Your task to perform on an android device: Search for hotels in Denver Image 0: 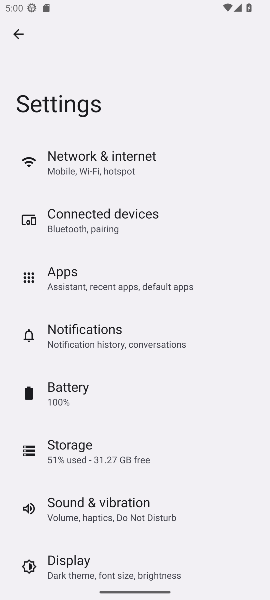
Step 0: press home button
Your task to perform on an android device: Search for hotels in Denver Image 1: 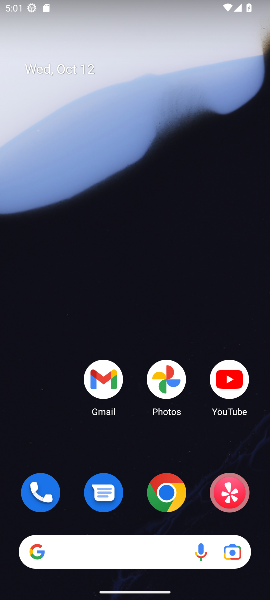
Step 1: click (158, 503)
Your task to perform on an android device: Search for hotels in Denver Image 2: 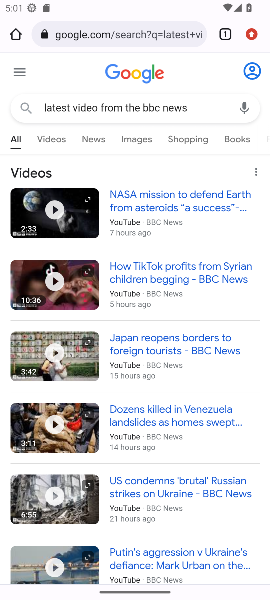
Step 2: click (183, 109)
Your task to perform on an android device: Search for hotels in Denver Image 3: 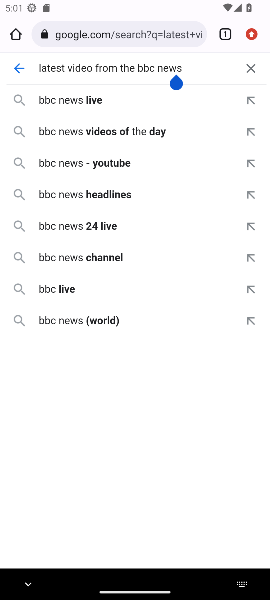
Step 3: click (248, 69)
Your task to perform on an android device: Search for hotels in Denver Image 4: 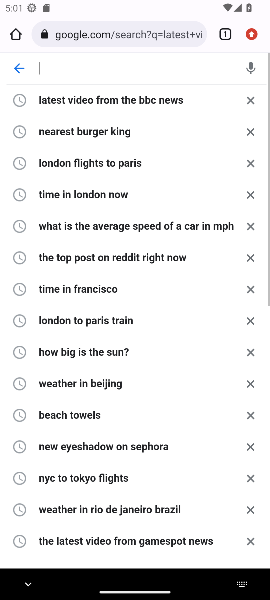
Step 4: type " hotels in Denver"
Your task to perform on an android device: Search for hotels in Denver Image 5: 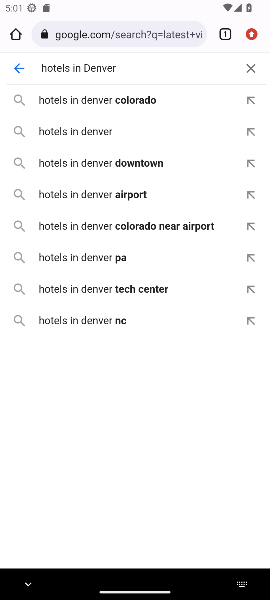
Step 5: click (77, 129)
Your task to perform on an android device: Search for hotels in Denver Image 6: 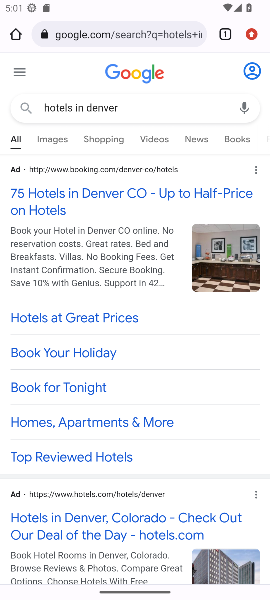
Step 6: task complete